Your task to perform on an android device: toggle location history Image 0: 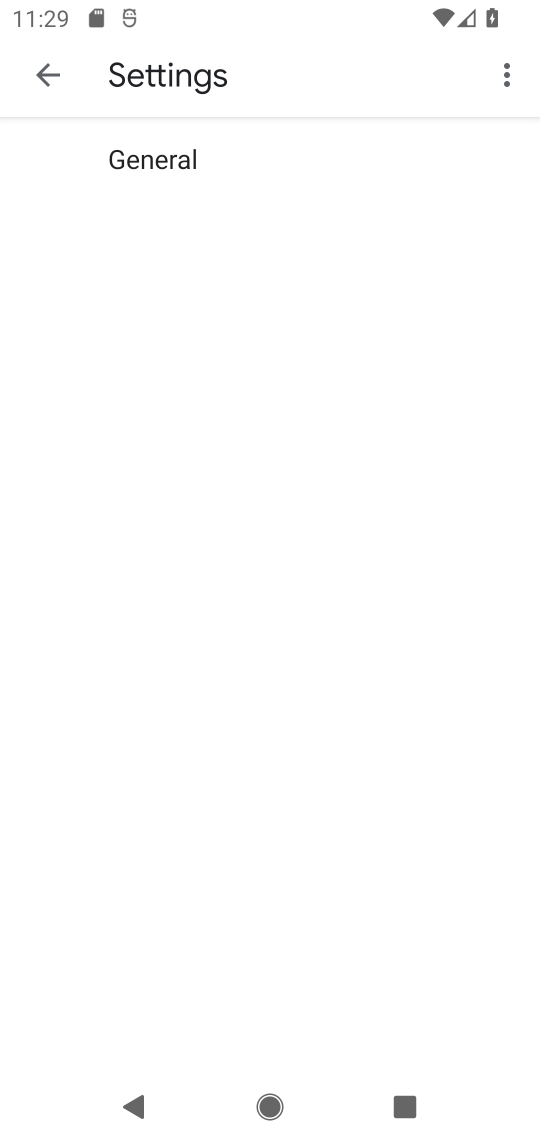
Step 0: press home button
Your task to perform on an android device: toggle location history Image 1: 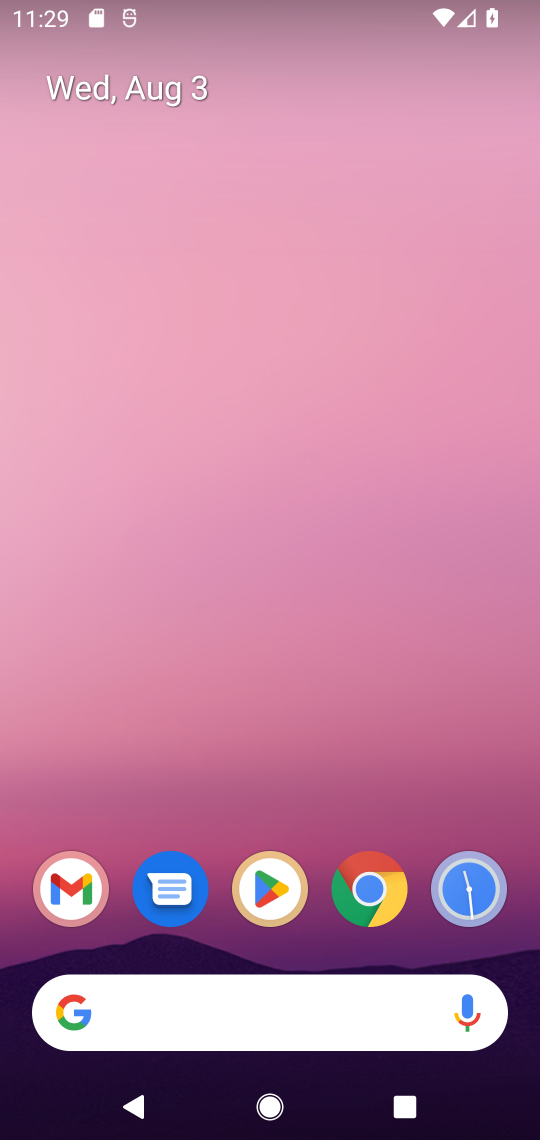
Step 1: drag from (426, 946) to (382, 261)
Your task to perform on an android device: toggle location history Image 2: 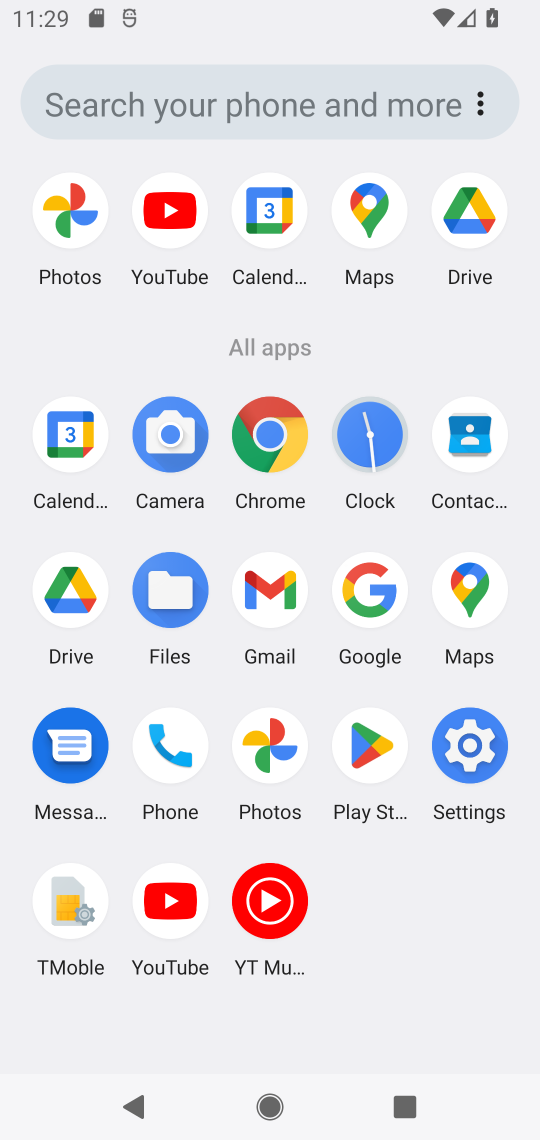
Step 2: click (471, 587)
Your task to perform on an android device: toggle location history Image 3: 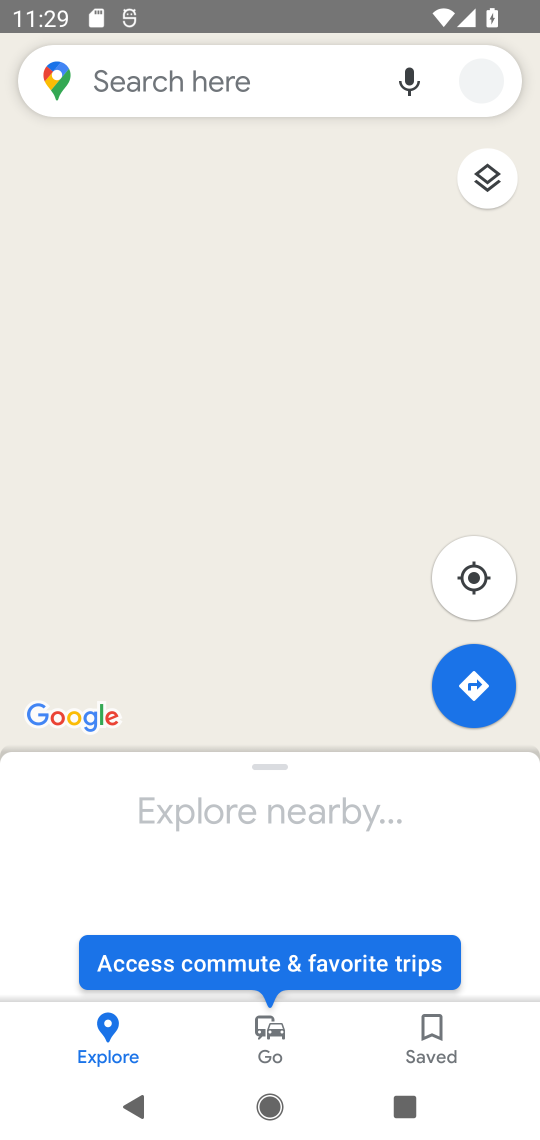
Step 3: click (478, 90)
Your task to perform on an android device: toggle location history Image 4: 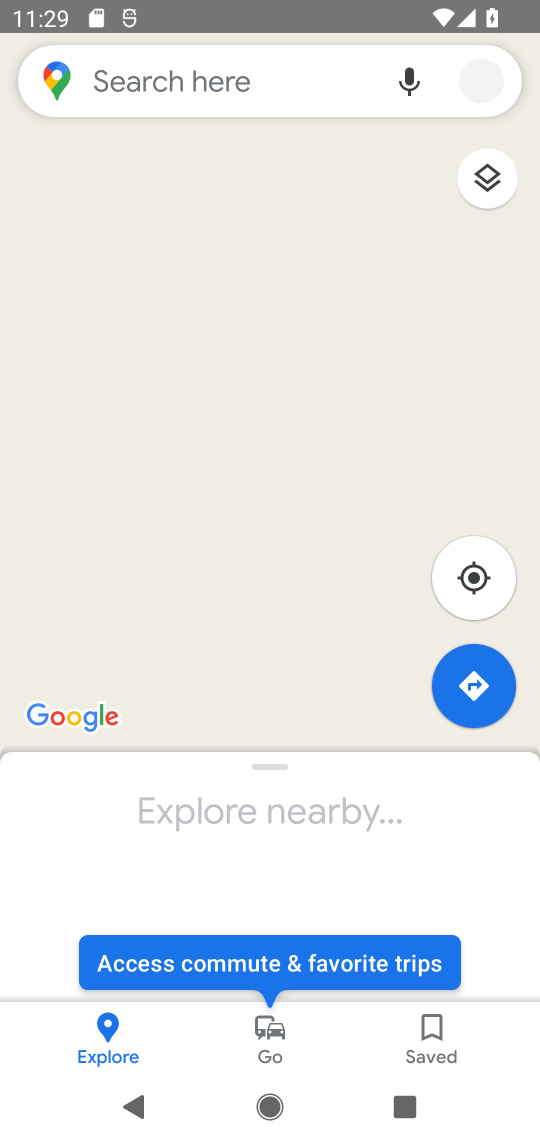
Step 4: click (482, 83)
Your task to perform on an android device: toggle location history Image 5: 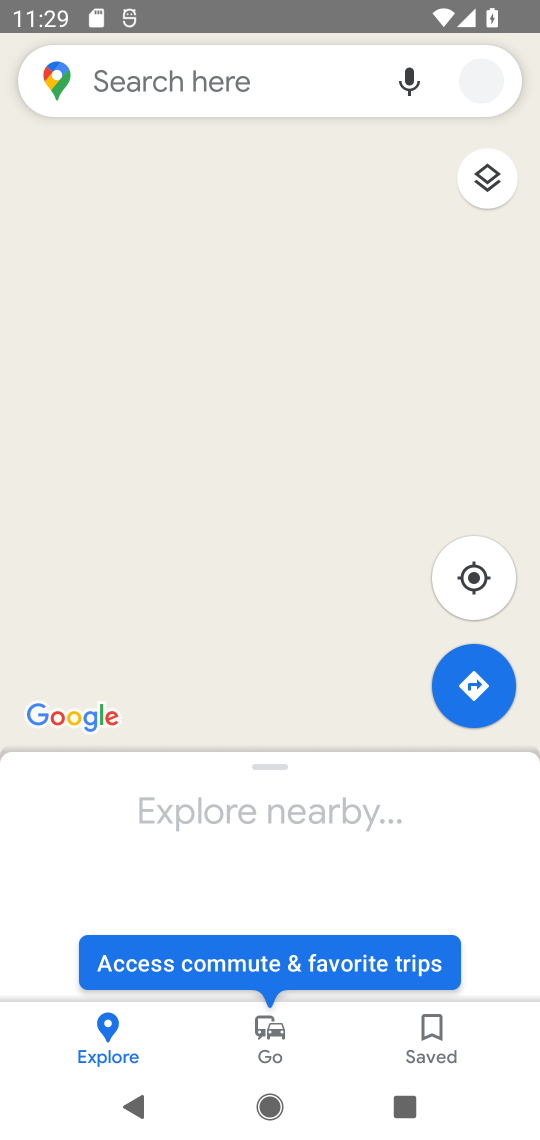
Step 5: click (274, 1028)
Your task to perform on an android device: toggle location history Image 6: 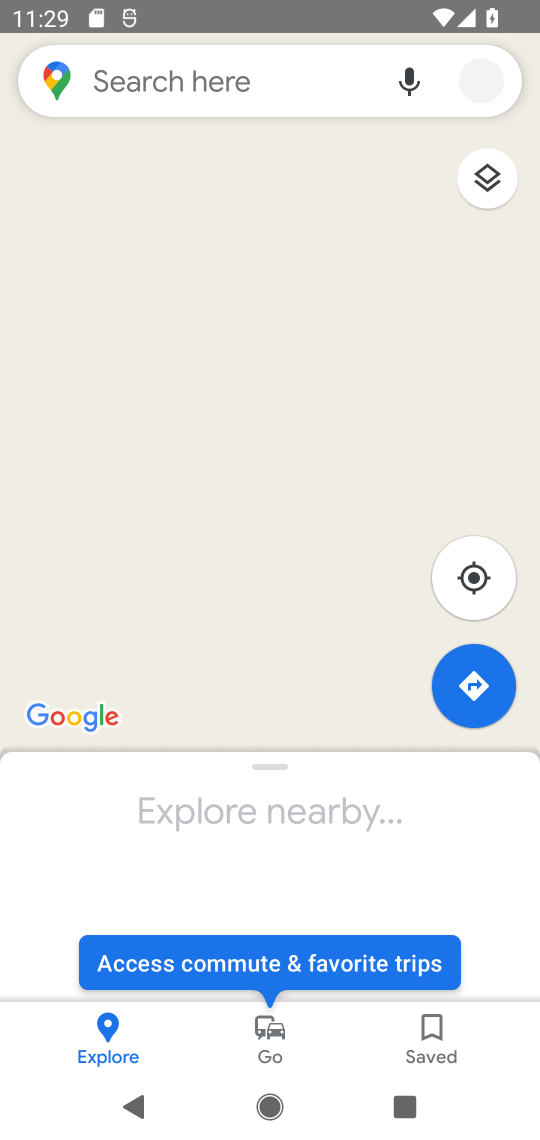
Step 6: click (428, 1019)
Your task to perform on an android device: toggle location history Image 7: 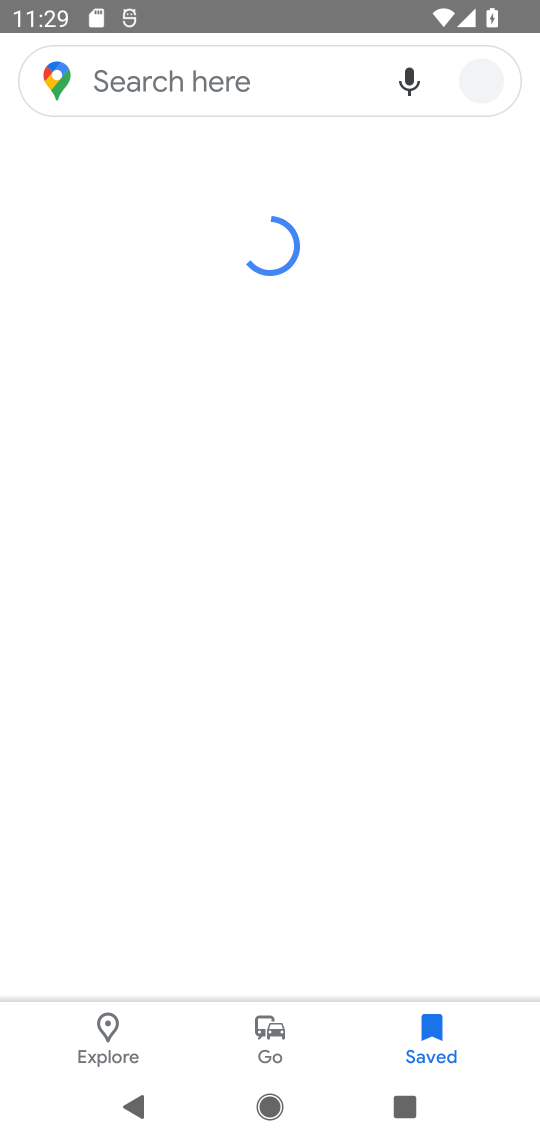
Step 7: click (486, 88)
Your task to perform on an android device: toggle location history Image 8: 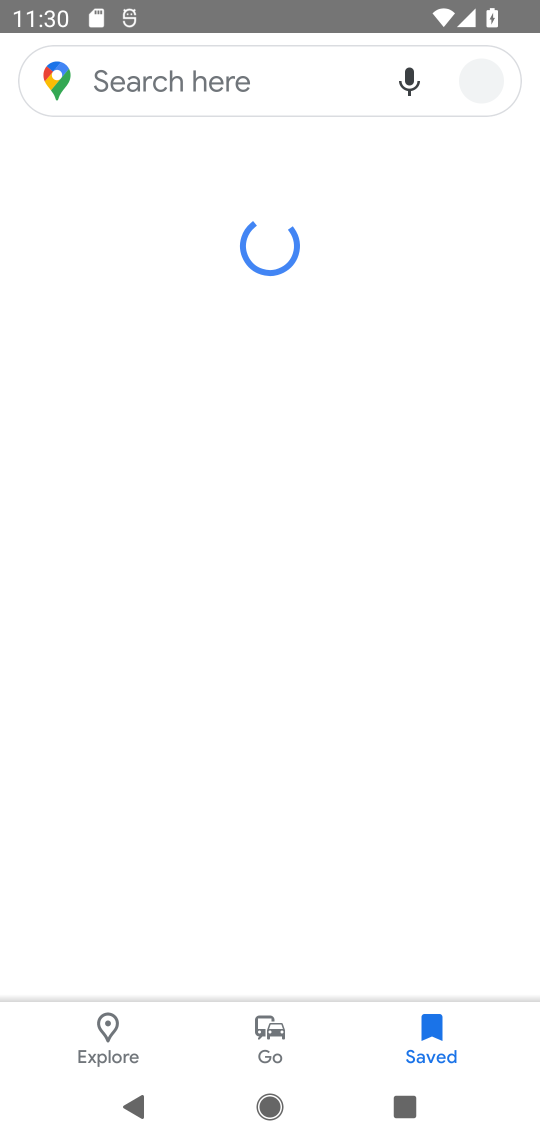
Step 8: click (486, 86)
Your task to perform on an android device: toggle location history Image 9: 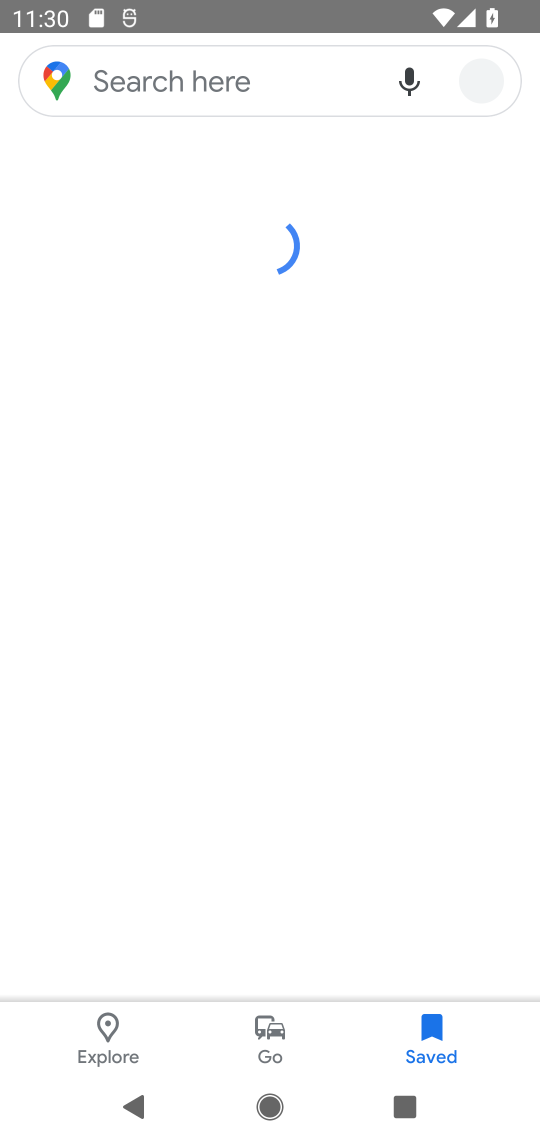
Step 9: task complete